Your task to perform on an android device: turn off sleep mode Image 0: 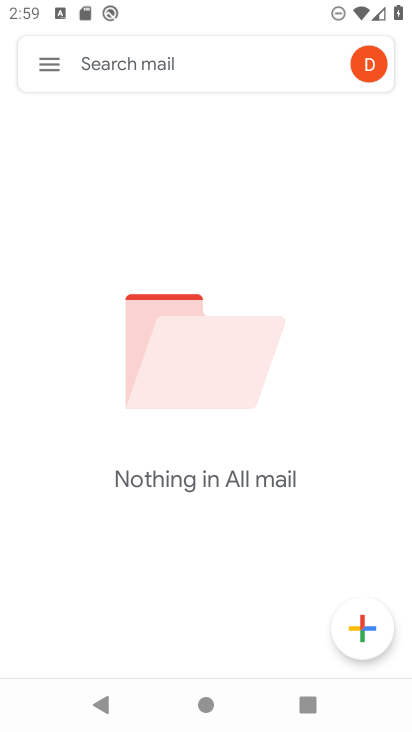
Step 0: press home button
Your task to perform on an android device: turn off sleep mode Image 1: 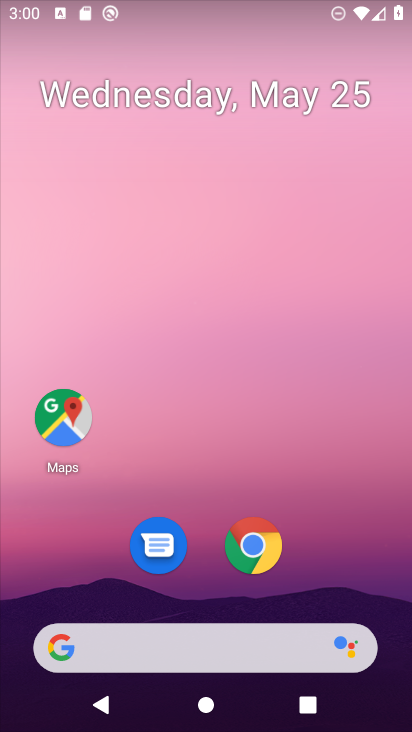
Step 1: drag from (356, 525) to (284, 96)
Your task to perform on an android device: turn off sleep mode Image 2: 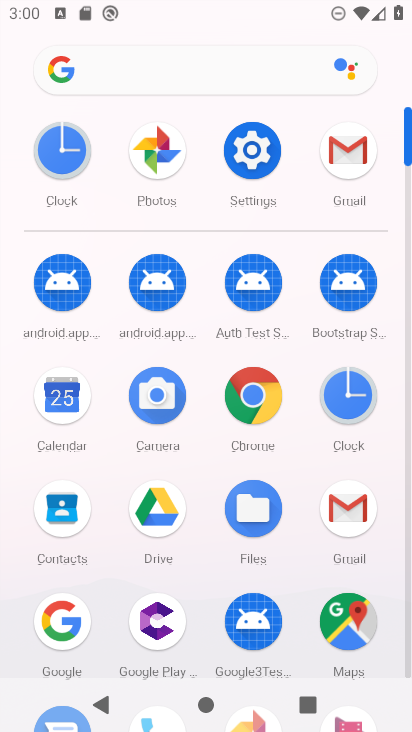
Step 2: click (251, 185)
Your task to perform on an android device: turn off sleep mode Image 3: 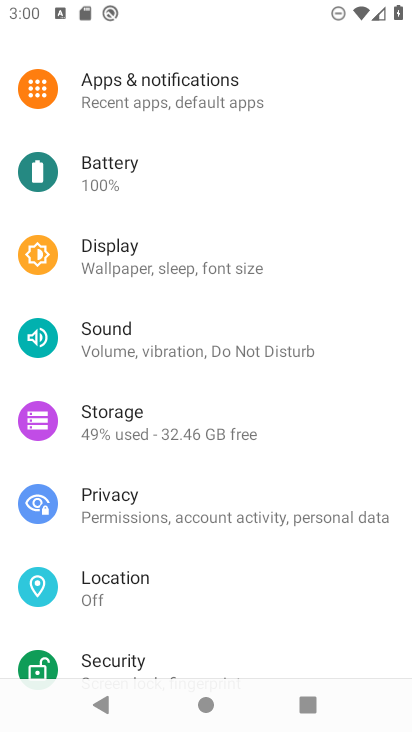
Step 3: task complete